Your task to perform on an android device: Open Yahoo.com Image 0: 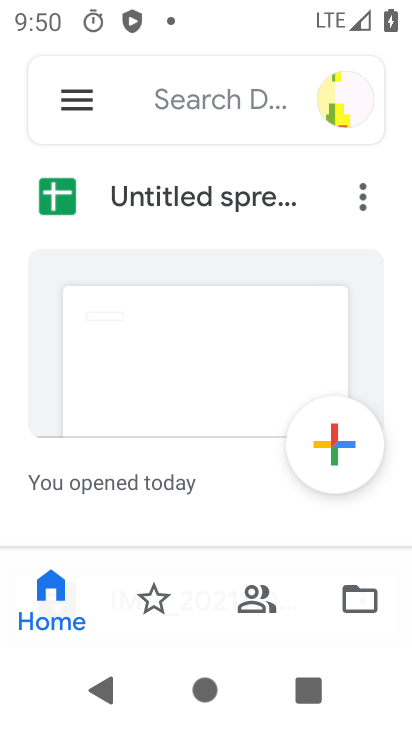
Step 0: press home button
Your task to perform on an android device: Open Yahoo.com Image 1: 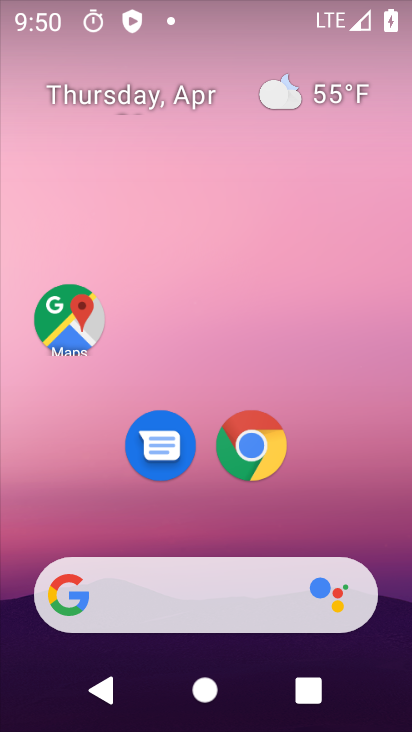
Step 1: click (250, 453)
Your task to perform on an android device: Open Yahoo.com Image 2: 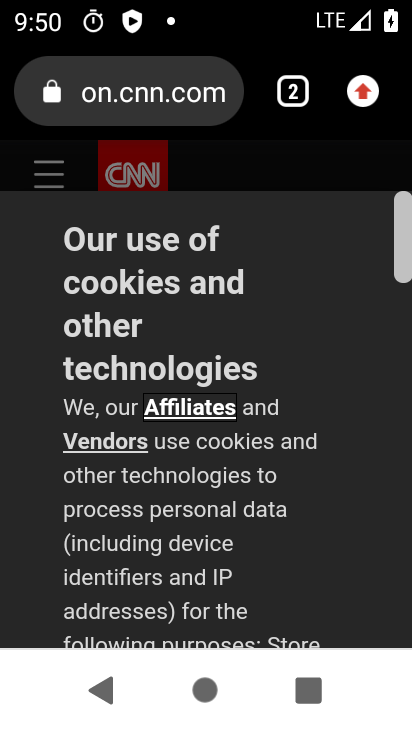
Step 2: click (142, 100)
Your task to perform on an android device: Open Yahoo.com Image 3: 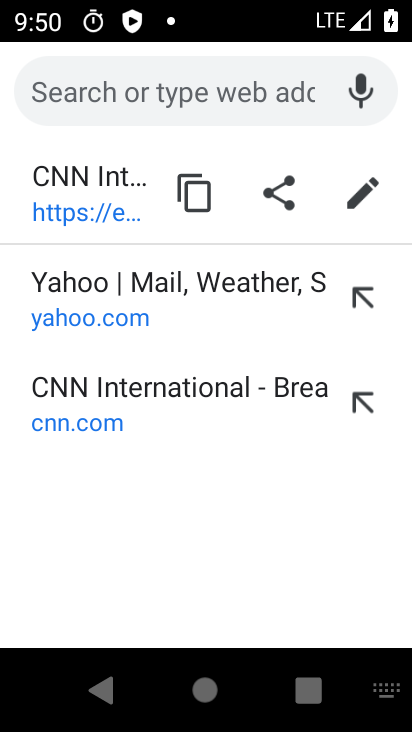
Step 3: click (61, 281)
Your task to perform on an android device: Open Yahoo.com Image 4: 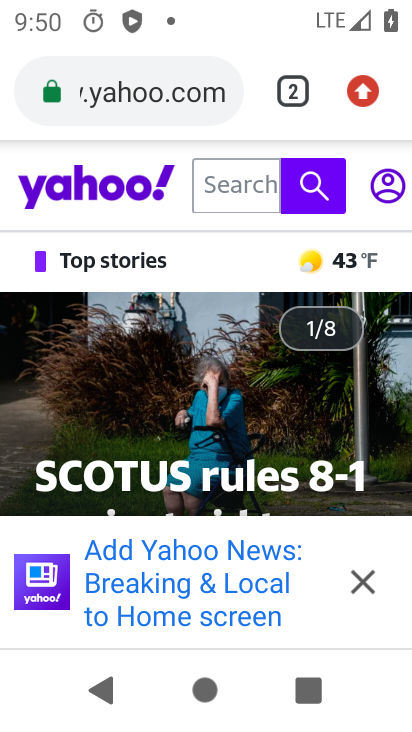
Step 4: task complete